Your task to perform on an android device: snooze an email in the gmail app Image 0: 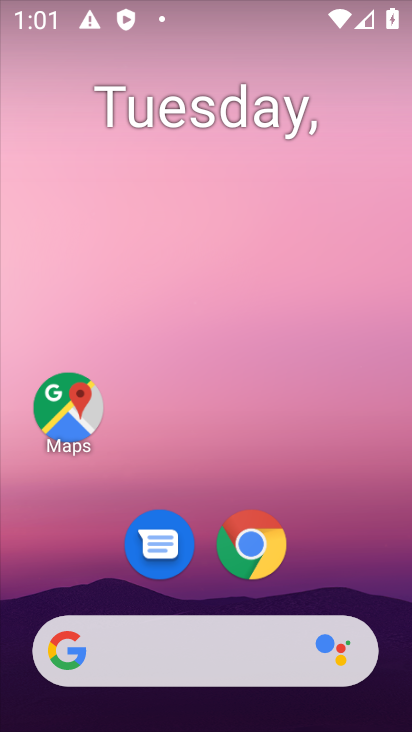
Step 0: drag from (357, 508) to (355, 84)
Your task to perform on an android device: snooze an email in the gmail app Image 1: 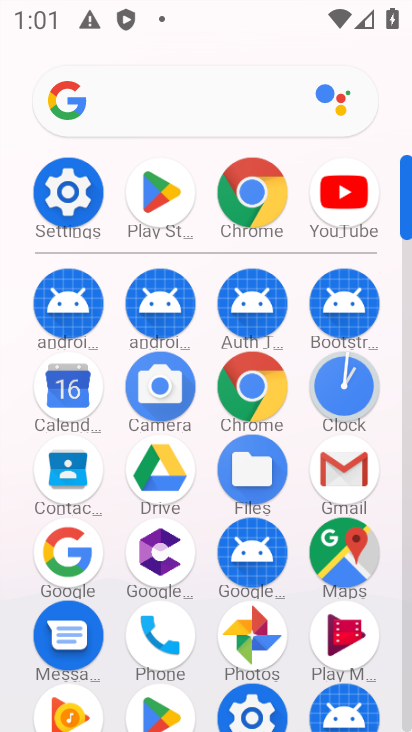
Step 1: click (347, 458)
Your task to perform on an android device: snooze an email in the gmail app Image 2: 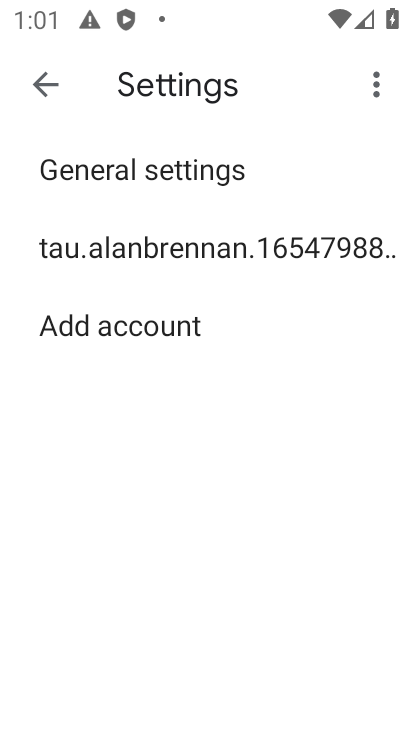
Step 2: click (40, 74)
Your task to perform on an android device: snooze an email in the gmail app Image 3: 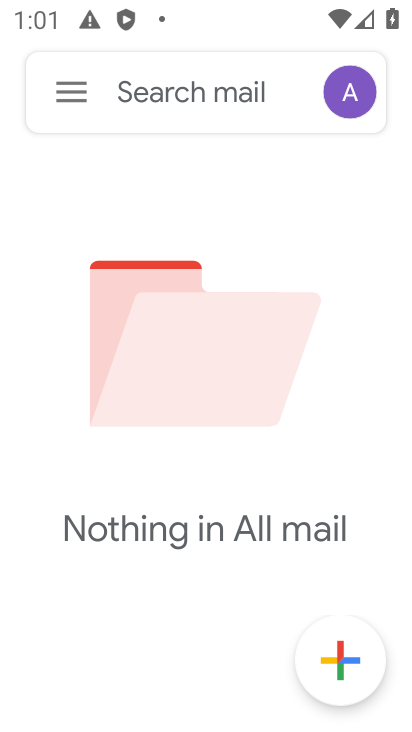
Step 3: click (58, 81)
Your task to perform on an android device: snooze an email in the gmail app Image 4: 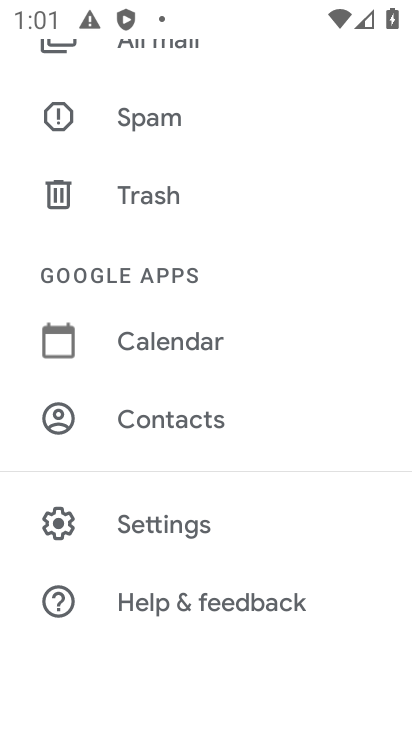
Step 4: drag from (248, 218) to (236, 623)
Your task to perform on an android device: snooze an email in the gmail app Image 5: 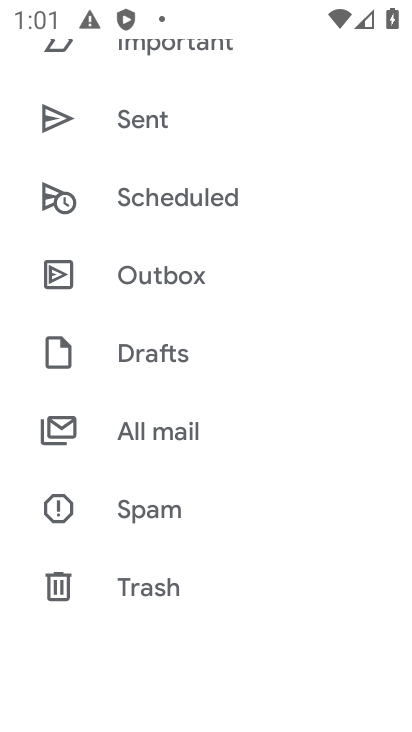
Step 5: click (171, 427)
Your task to perform on an android device: snooze an email in the gmail app Image 6: 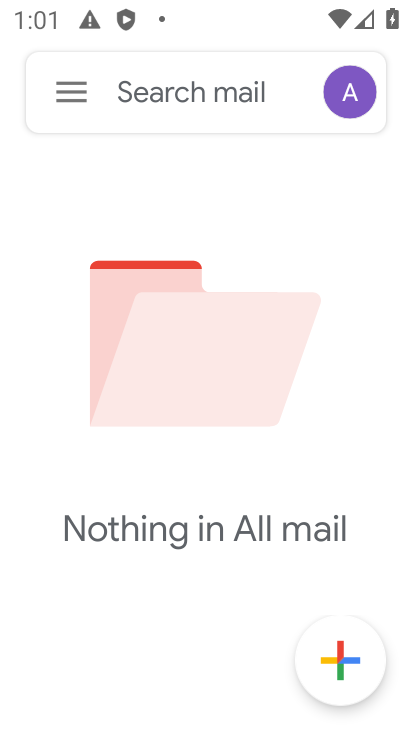
Step 6: task complete